Your task to perform on an android device: toggle show notifications on the lock screen Image 0: 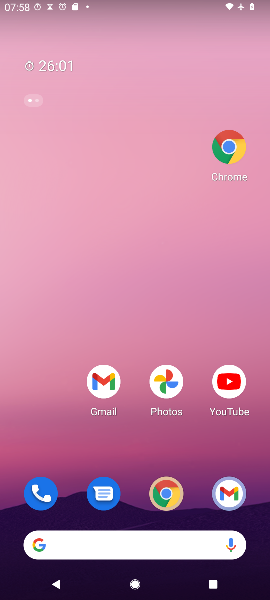
Step 0: press home button
Your task to perform on an android device: toggle show notifications on the lock screen Image 1: 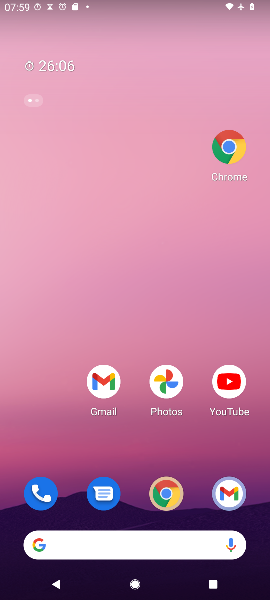
Step 1: drag from (135, 525) to (126, 51)
Your task to perform on an android device: toggle show notifications on the lock screen Image 2: 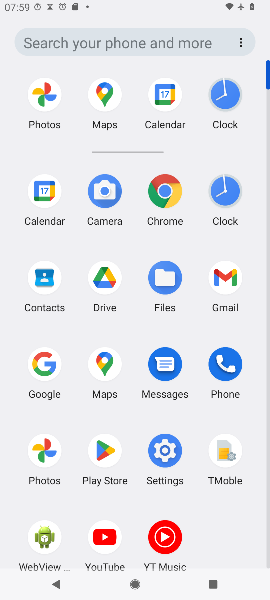
Step 2: click (161, 451)
Your task to perform on an android device: toggle show notifications on the lock screen Image 3: 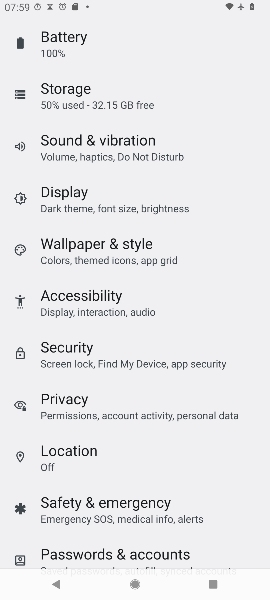
Step 3: drag from (214, 74) to (225, 515)
Your task to perform on an android device: toggle show notifications on the lock screen Image 4: 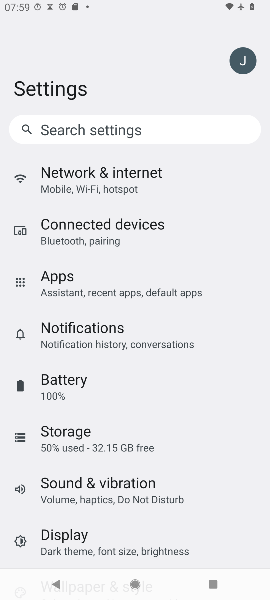
Step 4: click (79, 337)
Your task to perform on an android device: toggle show notifications on the lock screen Image 5: 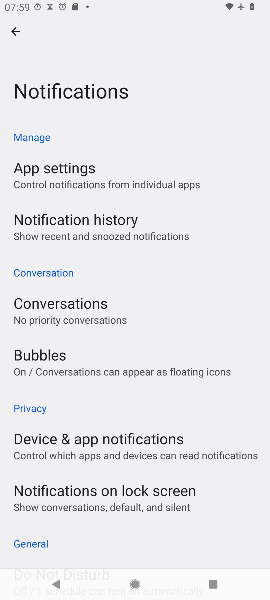
Step 5: click (125, 497)
Your task to perform on an android device: toggle show notifications on the lock screen Image 6: 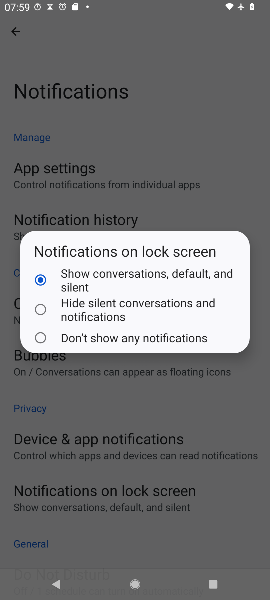
Step 6: click (40, 338)
Your task to perform on an android device: toggle show notifications on the lock screen Image 7: 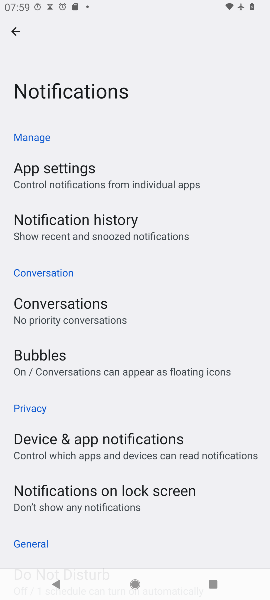
Step 7: task complete